Your task to perform on an android device: check data usage Image 0: 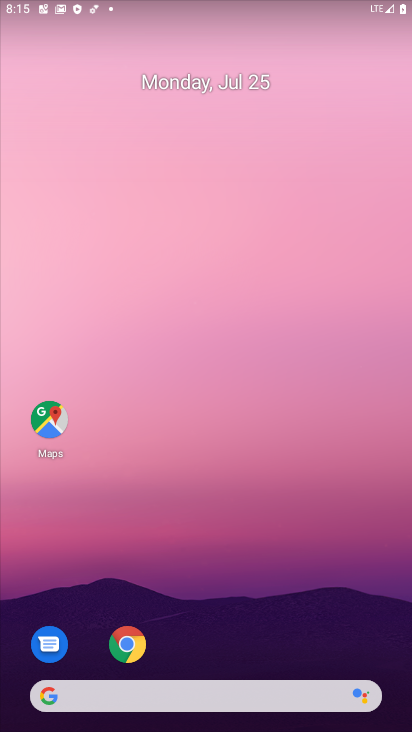
Step 0: drag from (273, 627) to (266, 306)
Your task to perform on an android device: check data usage Image 1: 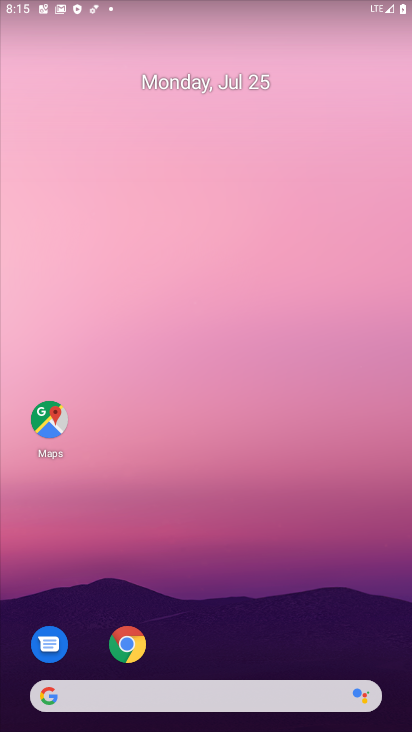
Step 1: drag from (246, 587) to (255, 156)
Your task to perform on an android device: check data usage Image 2: 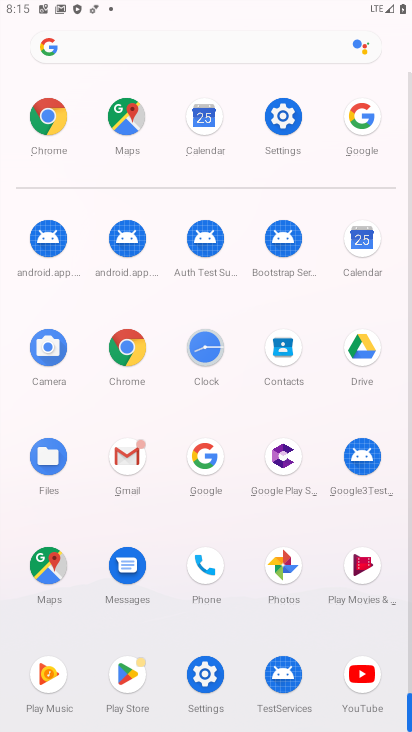
Step 2: click (205, 687)
Your task to perform on an android device: check data usage Image 3: 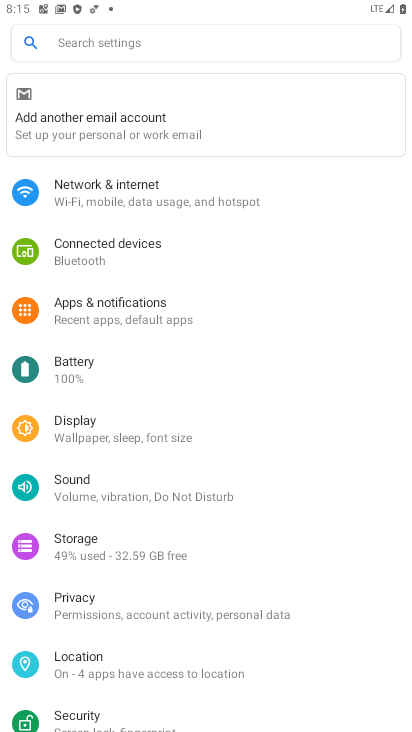
Step 3: click (210, 198)
Your task to perform on an android device: check data usage Image 4: 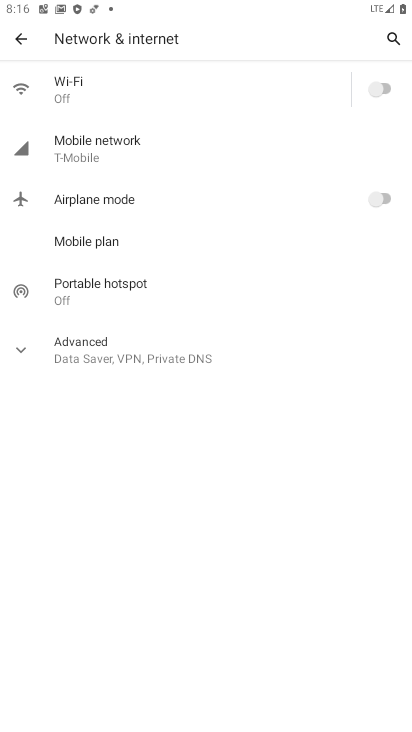
Step 4: click (153, 142)
Your task to perform on an android device: check data usage Image 5: 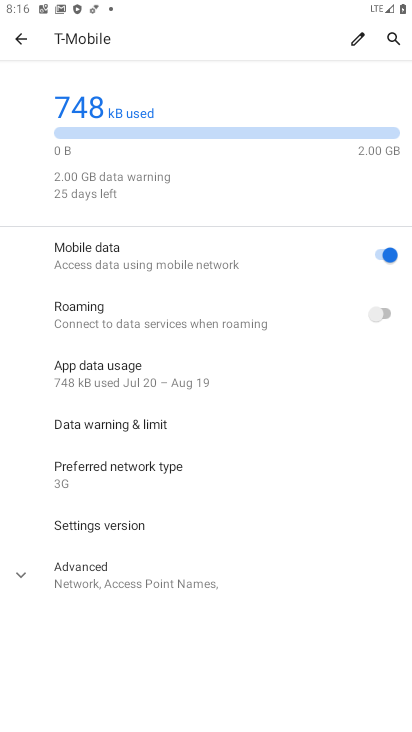
Step 5: click (171, 395)
Your task to perform on an android device: check data usage Image 6: 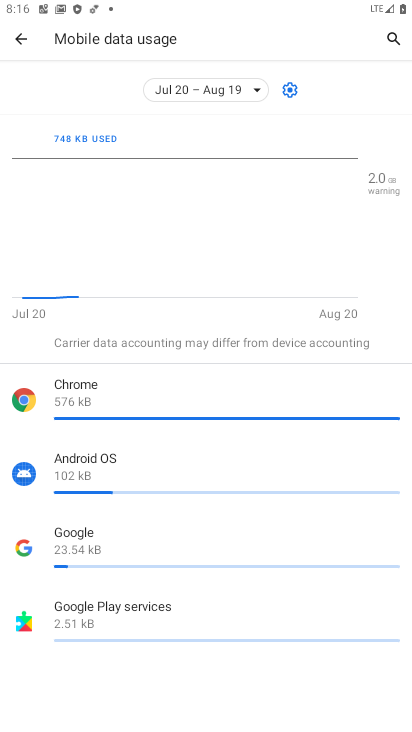
Step 6: task complete